Your task to perform on an android device: open app "Facebook Messenger" Image 0: 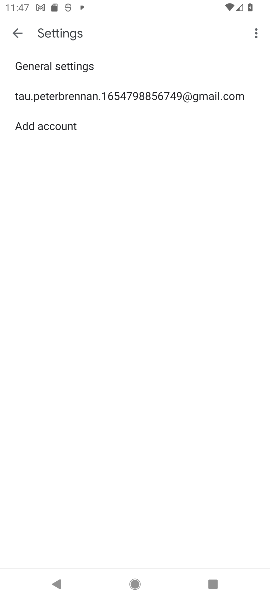
Step 0: press back button
Your task to perform on an android device: open app "Facebook Messenger" Image 1: 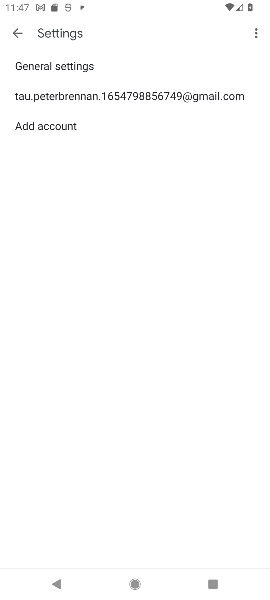
Step 1: press home button
Your task to perform on an android device: open app "Facebook Messenger" Image 2: 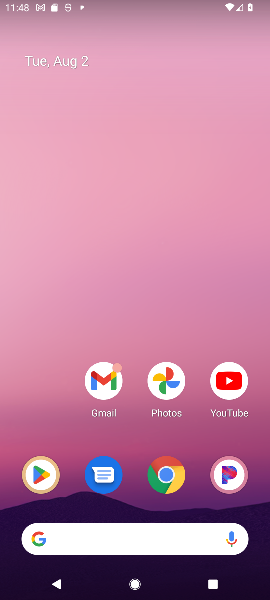
Step 2: click (49, 470)
Your task to perform on an android device: open app "Facebook Messenger" Image 3: 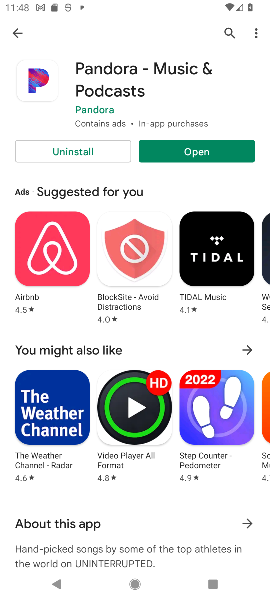
Step 3: click (19, 31)
Your task to perform on an android device: open app "Facebook Messenger" Image 4: 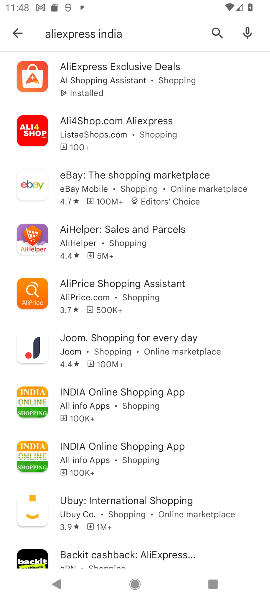
Step 4: click (220, 27)
Your task to perform on an android device: open app "Facebook Messenger" Image 5: 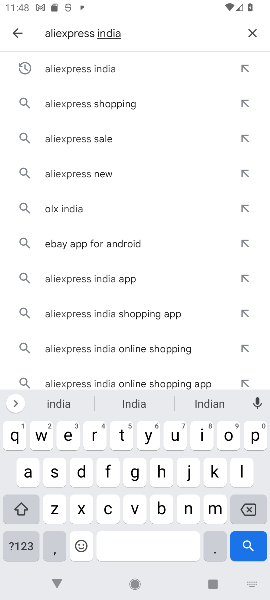
Step 5: click (253, 31)
Your task to perform on an android device: open app "Facebook Messenger" Image 6: 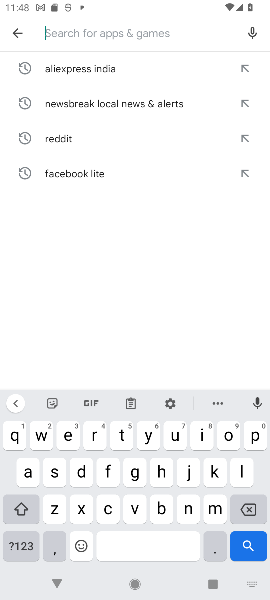
Step 6: type "Facebook Messenger"
Your task to perform on an android device: open app "Facebook Messenger" Image 7: 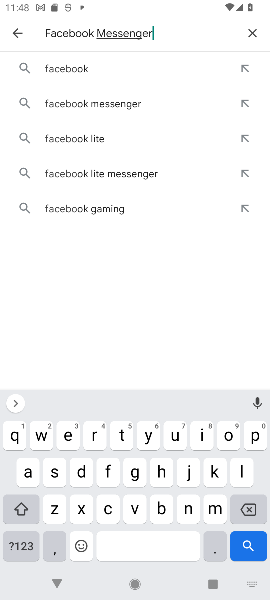
Step 7: type ""
Your task to perform on an android device: open app "Facebook Messenger" Image 8: 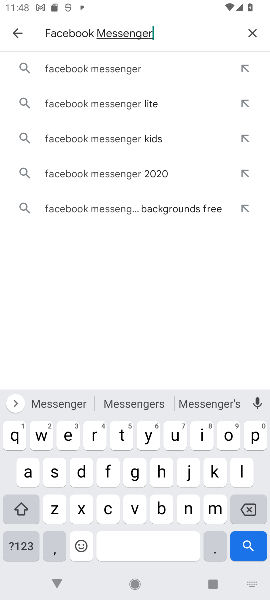
Step 8: click (131, 71)
Your task to perform on an android device: open app "Facebook Messenger" Image 9: 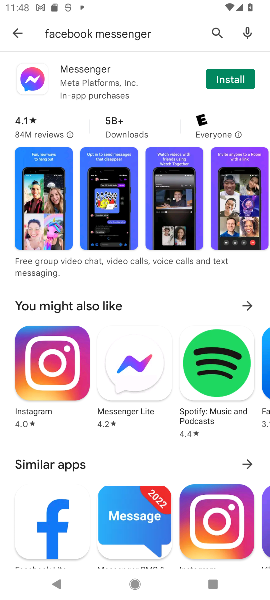
Step 9: task complete